Your task to perform on an android device: Show me recent news Image 0: 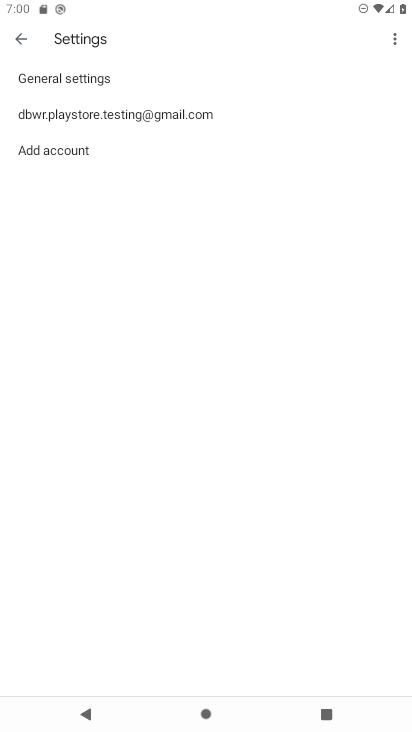
Step 0: press home button
Your task to perform on an android device: Show me recent news Image 1: 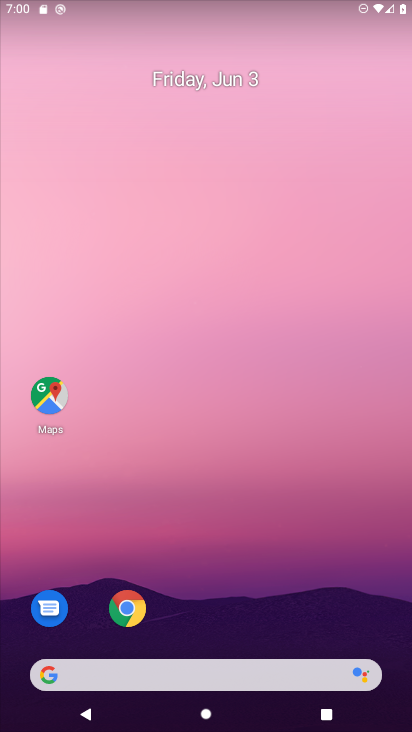
Step 1: click (133, 606)
Your task to perform on an android device: Show me recent news Image 2: 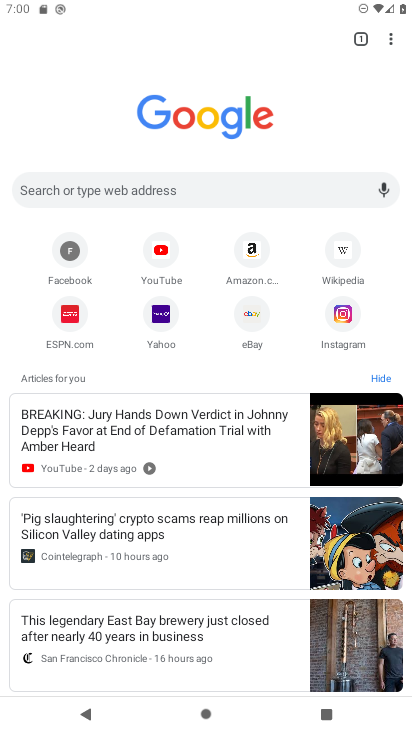
Step 2: task complete